Your task to perform on an android device: show emergency info Image 0: 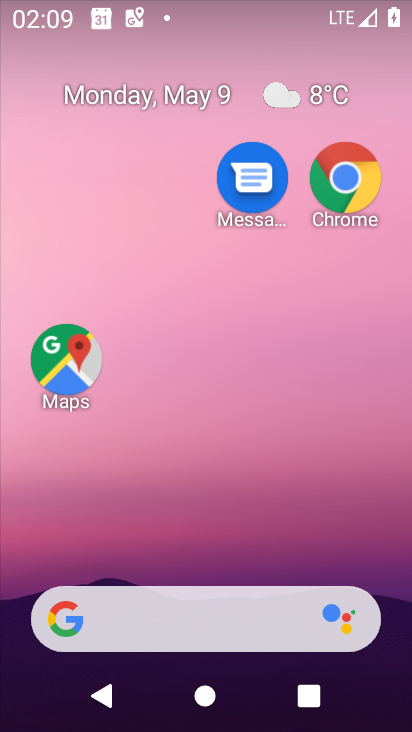
Step 0: drag from (246, 573) to (204, 138)
Your task to perform on an android device: show emergency info Image 1: 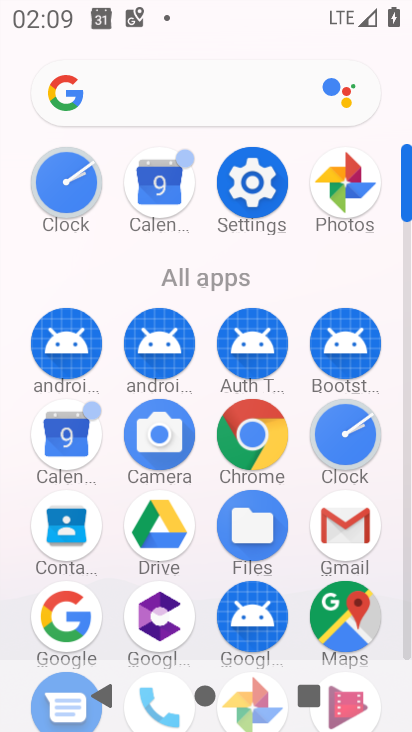
Step 1: drag from (297, 553) to (270, 133)
Your task to perform on an android device: show emergency info Image 2: 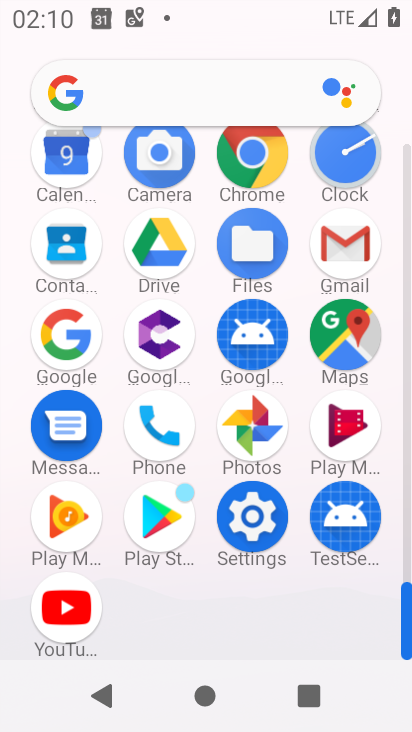
Step 2: click (248, 540)
Your task to perform on an android device: show emergency info Image 3: 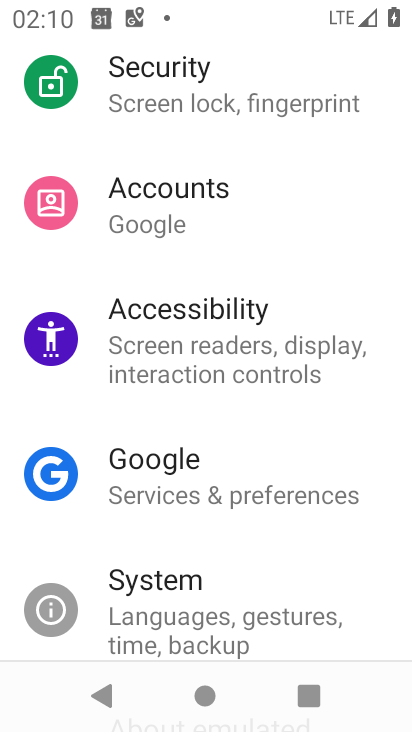
Step 3: drag from (184, 168) to (185, 566)
Your task to perform on an android device: show emergency info Image 4: 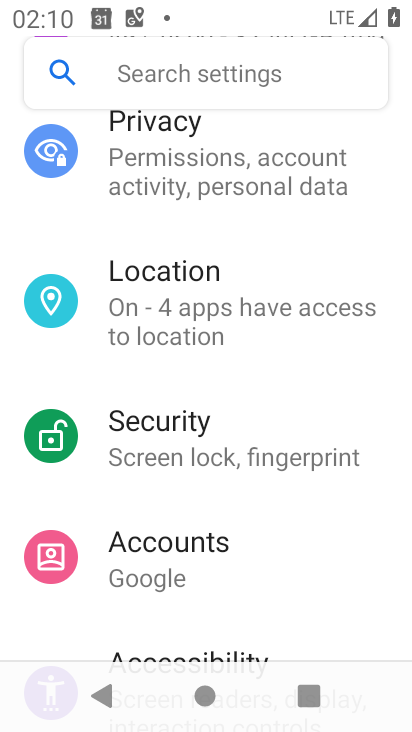
Step 4: drag from (187, 254) to (187, 579)
Your task to perform on an android device: show emergency info Image 5: 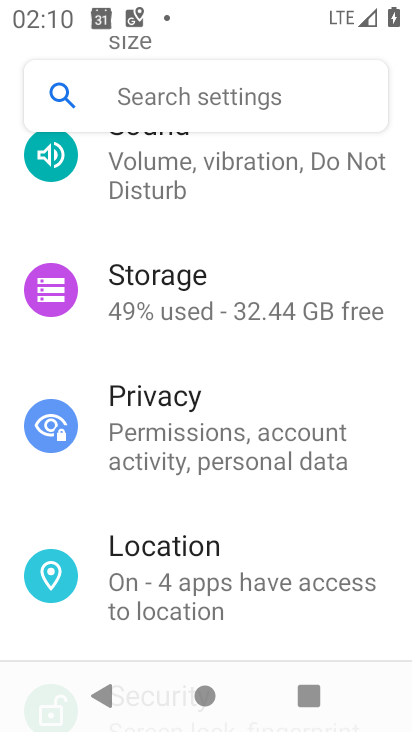
Step 5: drag from (224, 309) to (208, 121)
Your task to perform on an android device: show emergency info Image 6: 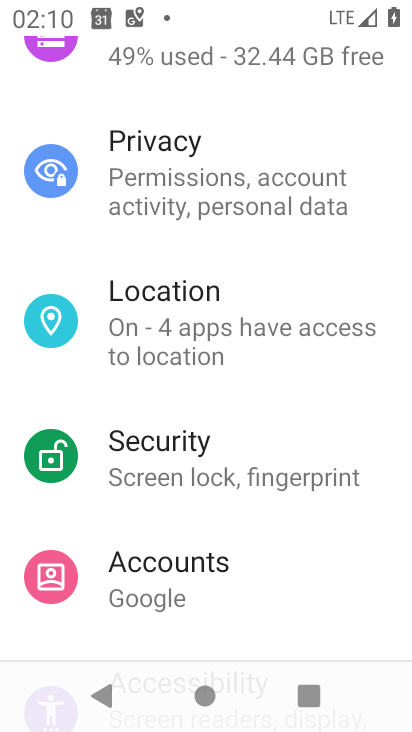
Step 6: drag from (224, 558) to (169, 136)
Your task to perform on an android device: show emergency info Image 7: 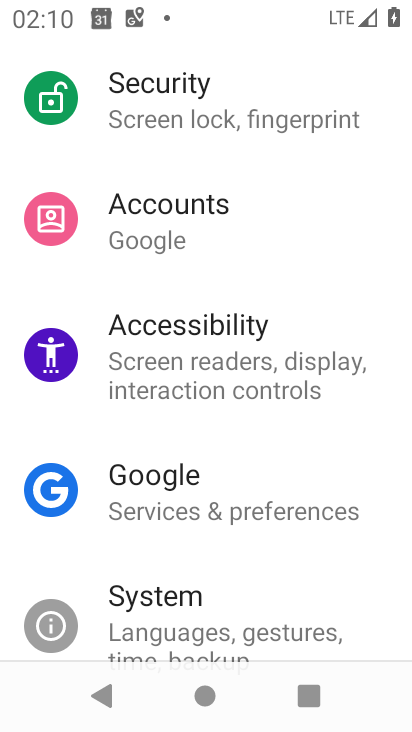
Step 7: drag from (208, 629) to (150, 170)
Your task to perform on an android device: show emergency info Image 8: 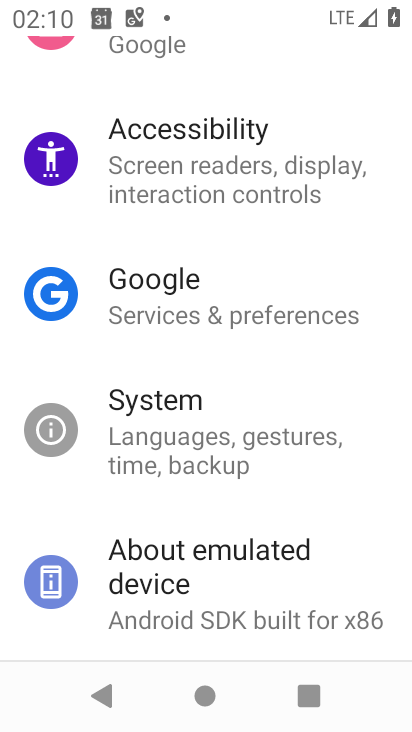
Step 8: drag from (192, 313) to (214, 699)
Your task to perform on an android device: show emergency info Image 9: 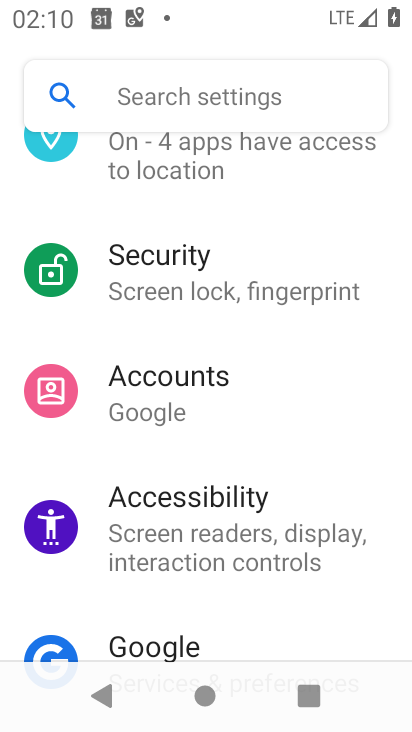
Step 9: drag from (208, 276) to (197, 622)
Your task to perform on an android device: show emergency info Image 10: 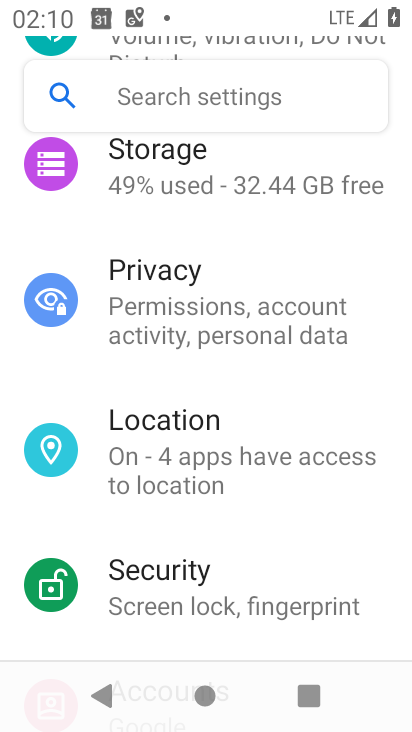
Step 10: drag from (219, 256) to (233, 633)
Your task to perform on an android device: show emergency info Image 11: 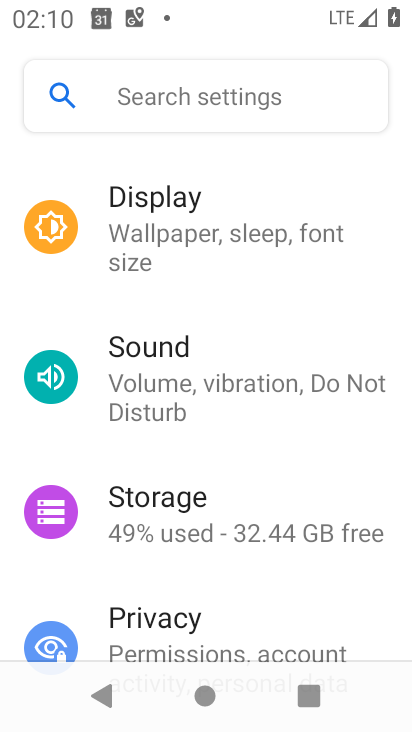
Step 11: drag from (221, 300) to (211, 587)
Your task to perform on an android device: show emergency info Image 12: 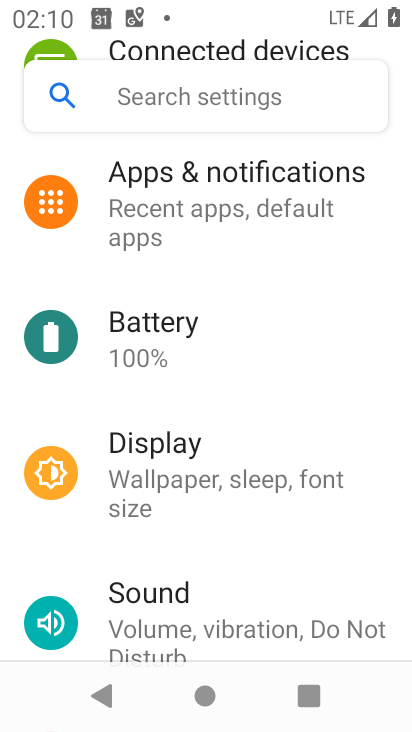
Step 12: click (194, 83)
Your task to perform on an android device: show emergency info Image 13: 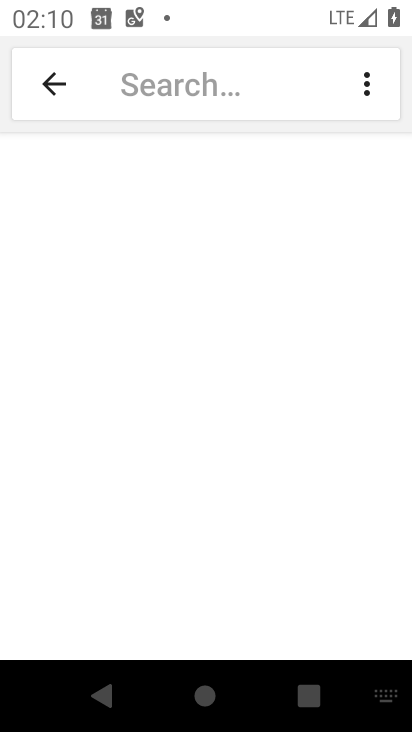
Step 13: type "emergency info"
Your task to perform on an android device: show emergency info Image 14: 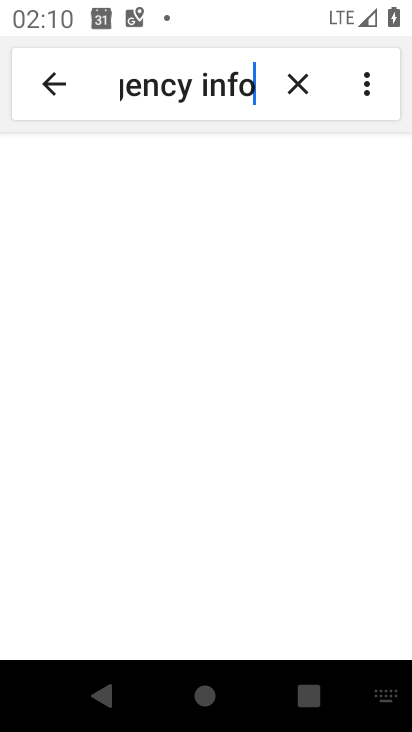
Step 14: type ""
Your task to perform on an android device: show emergency info Image 15: 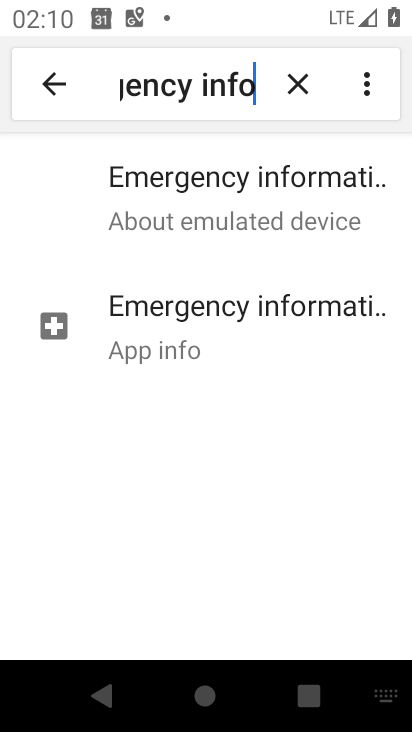
Step 15: click (288, 189)
Your task to perform on an android device: show emergency info Image 16: 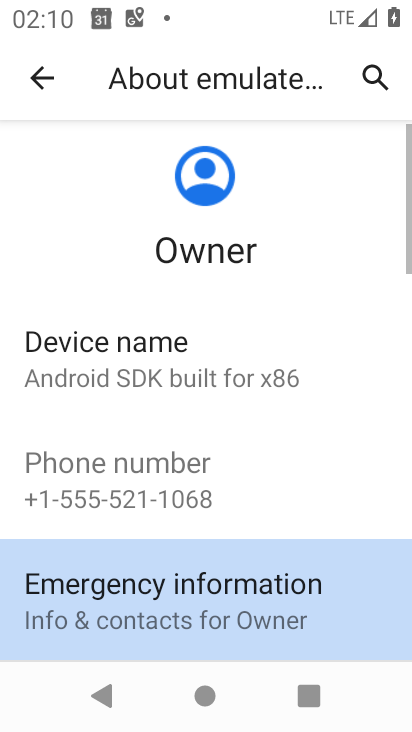
Step 16: drag from (311, 525) to (284, 146)
Your task to perform on an android device: show emergency info Image 17: 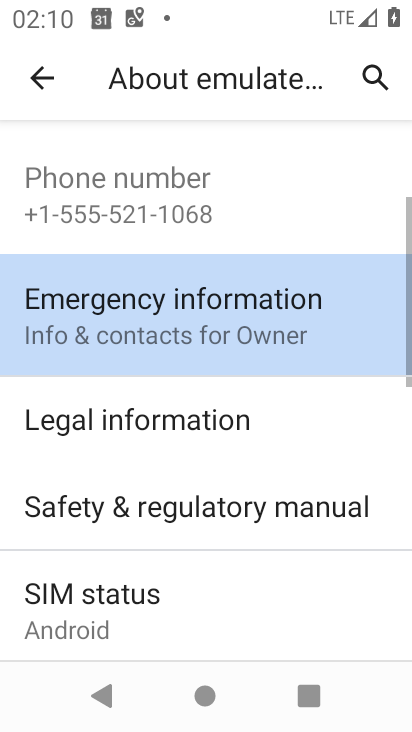
Step 17: click (260, 298)
Your task to perform on an android device: show emergency info Image 18: 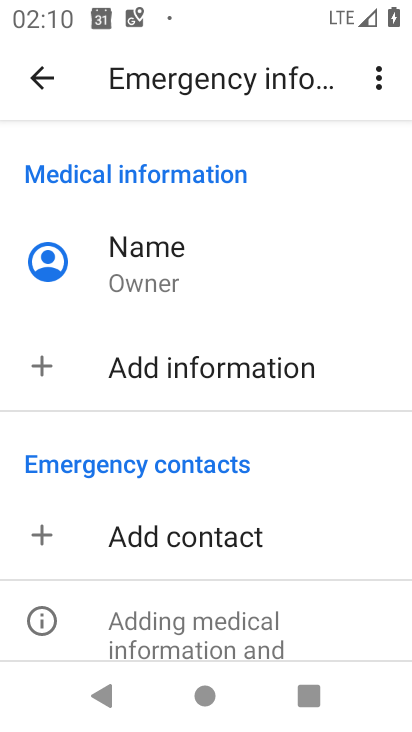
Step 18: task complete